Your task to perform on an android device: refresh tabs in the chrome app Image 0: 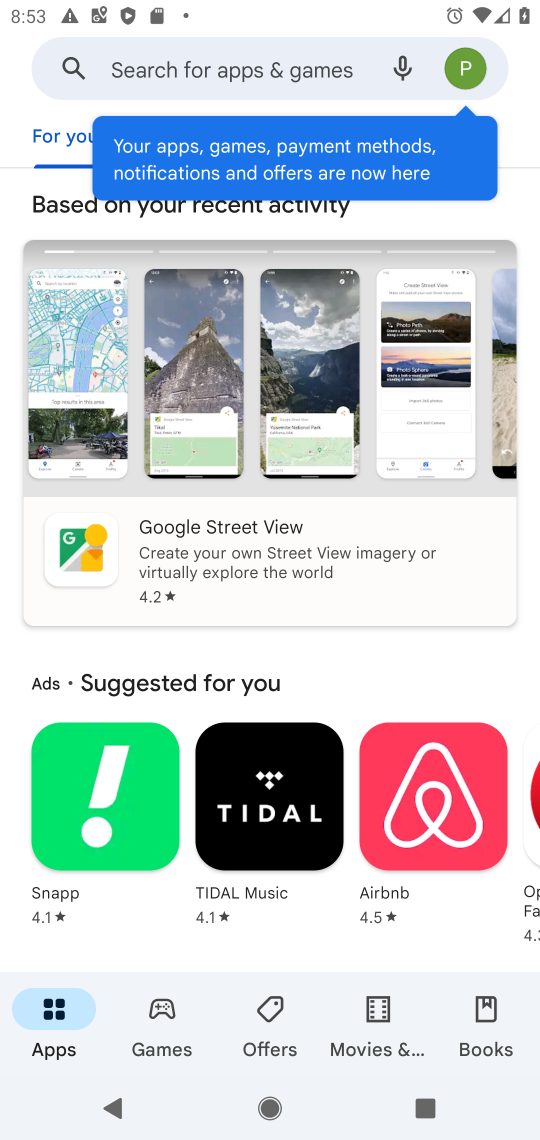
Step 0: press home button
Your task to perform on an android device: refresh tabs in the chrome app Image 1: 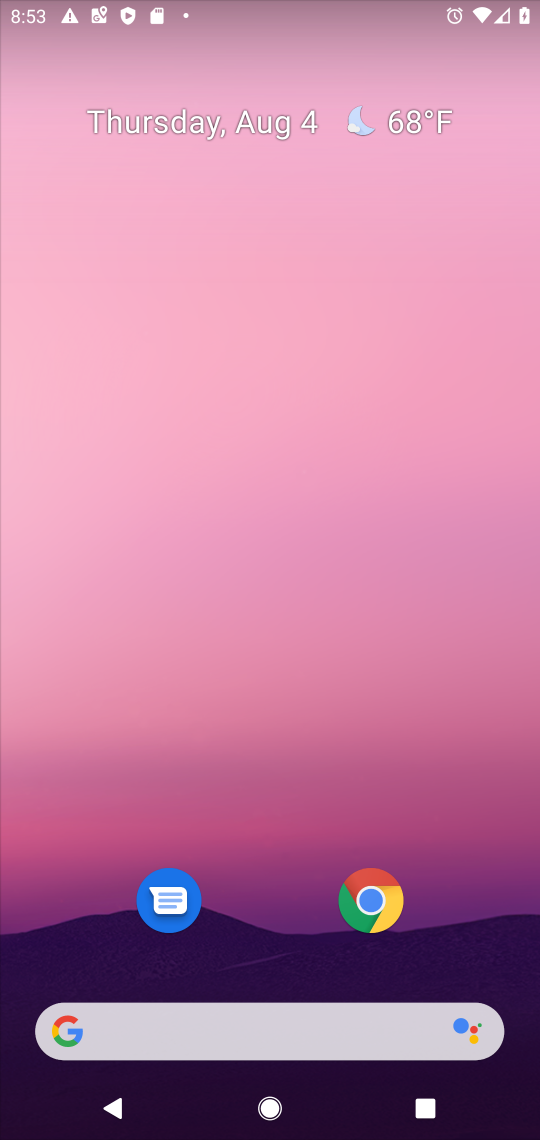
Step 1: click (374, 904)
Your task to perform on an android device: refresh tabs in the chrome app Image 2: 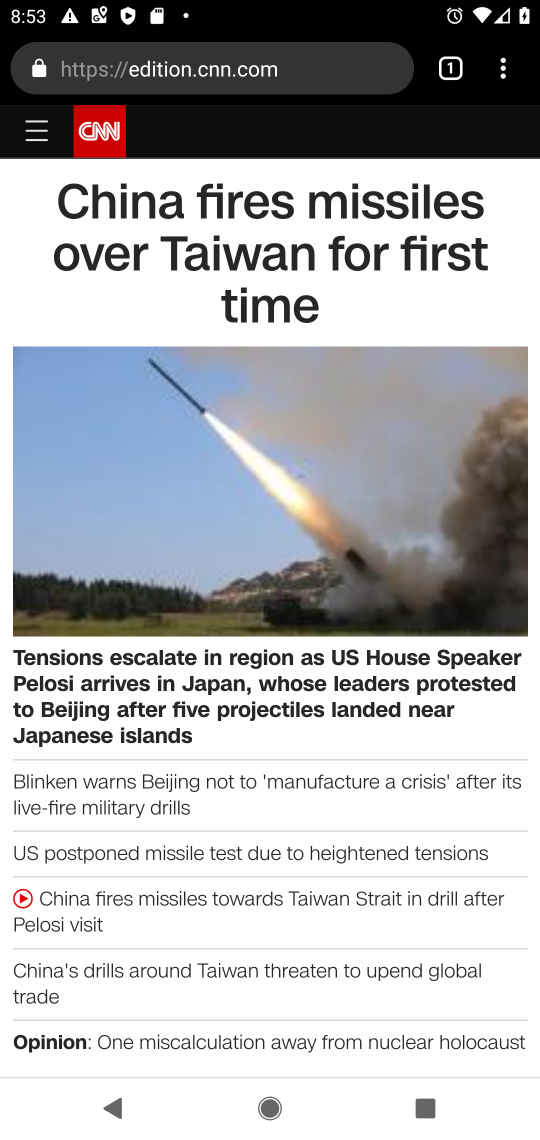
Step 2: click (505, 73)
Your task to perform on an android device: refresh tabs in the chrome app Image 3: 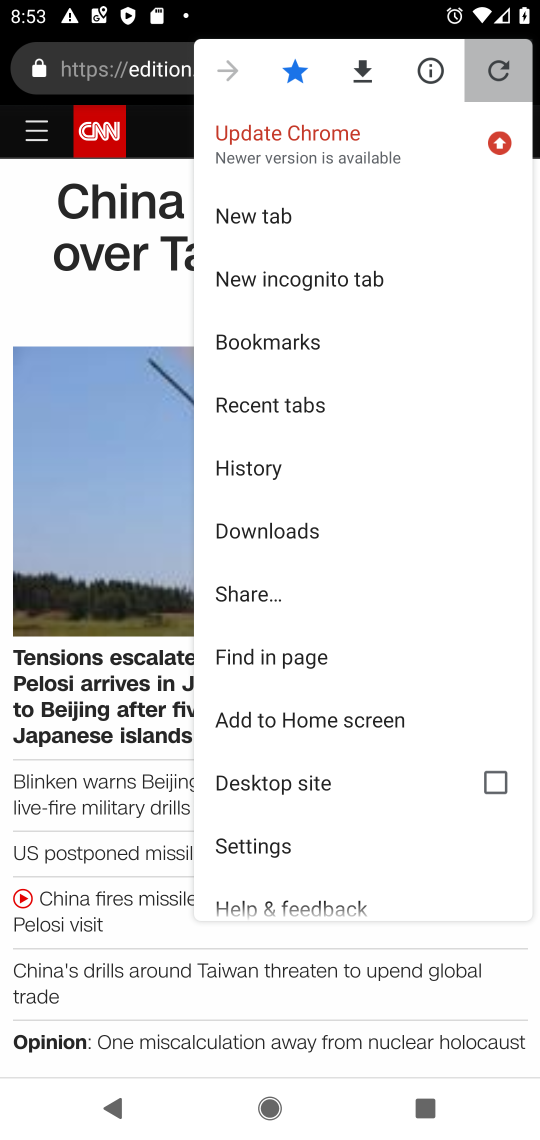
Step 3: click (488, 69)
Your task to perform on an android device: refresh tabs in the chrome app Image 4: 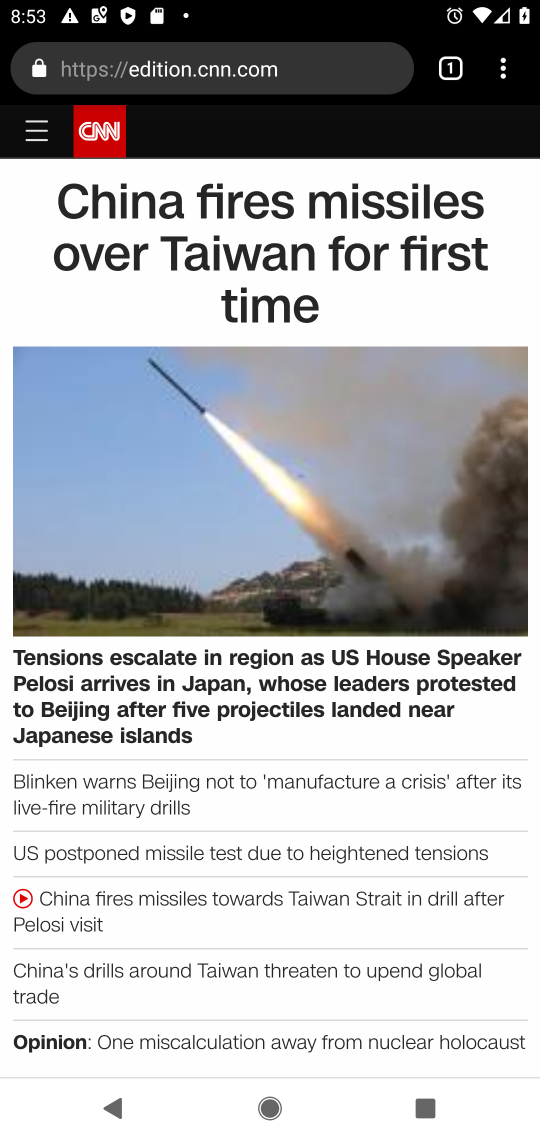
Step 4: task complete